Your task to perform on an android device: Go to Maps Image 0: 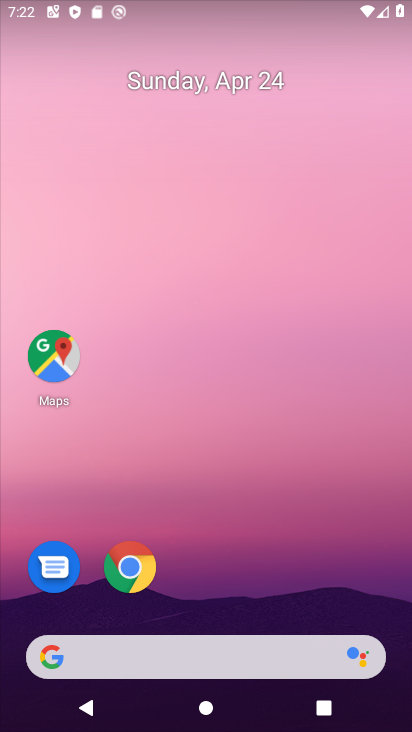
Step 0: drag from (306, 520) to (308, 65)
Your task to perform on an android device: Go to Maps Image 1: 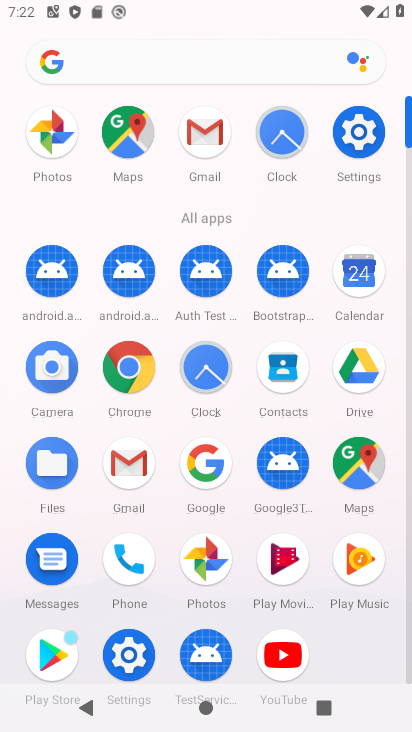
Step 1: click (141, 147)
Your task to perform on an android device: Go to Maps Image 2: 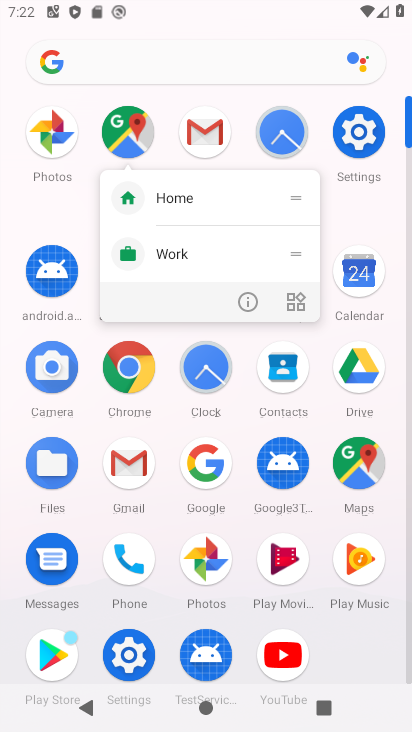
Step 2: click (141, 147)
Your task to perform on an android device: Go to Maps Image 3: 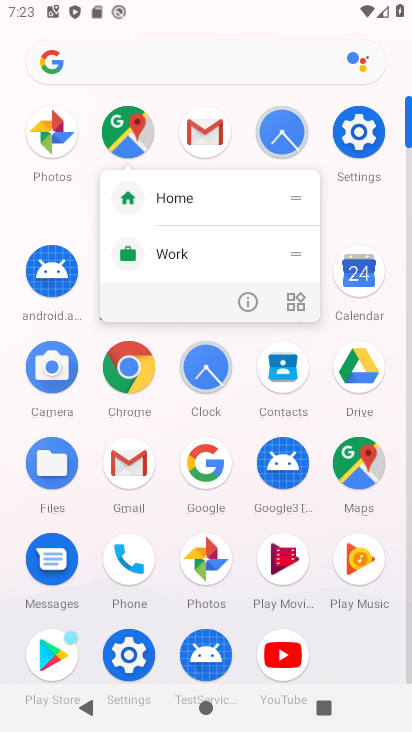
Step 3: click (141, 147)
Your task to perform on an android device: Go to Maps Image 4: 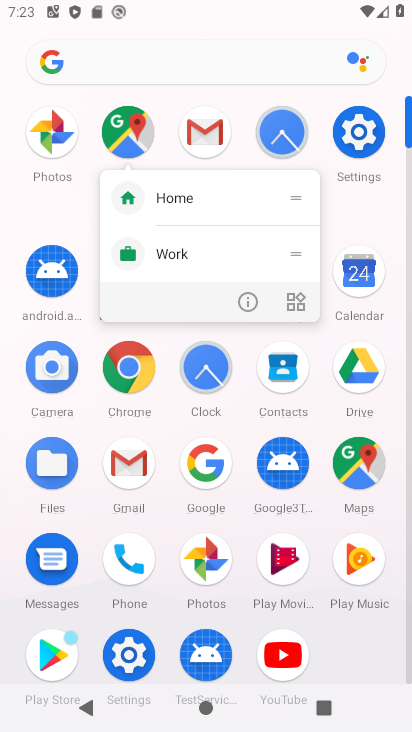
Step 4: click (141, 147)
Your task to perform on an android device: Go to Maps Image 5: 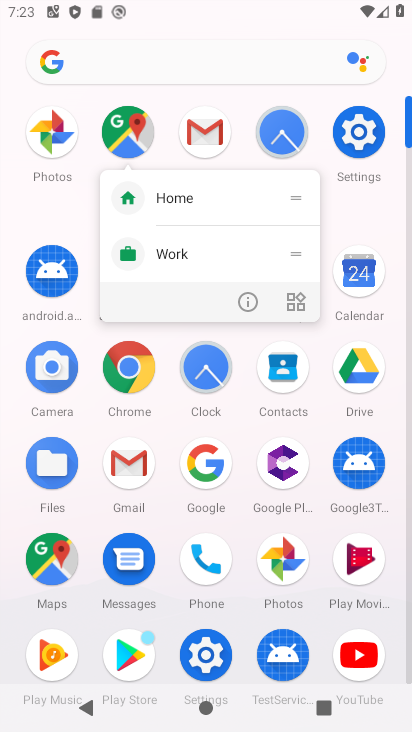
Step 5: click (141, 147)
Your task to perform on an android device: Go to Maps Image 6: 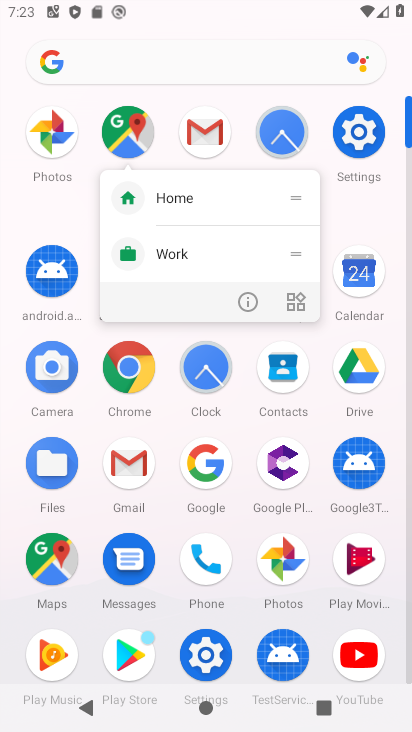
Step 6: click (141, 147)
Your task to perform on an android device: Go to Maps Image 7: 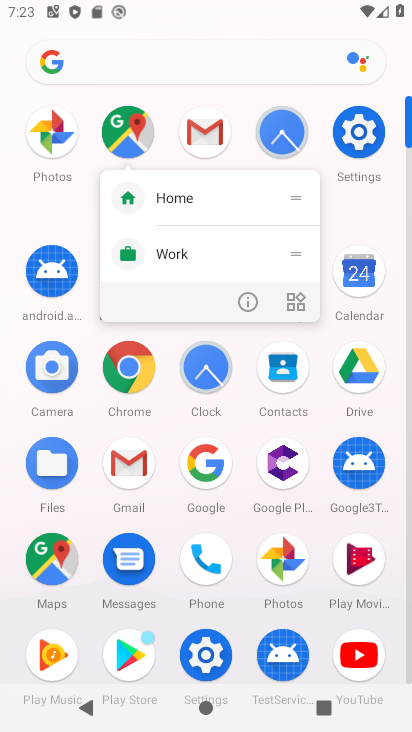
Step 7: click (141, 147)
Your task to perform on an android device: Go to Maps Image 8: 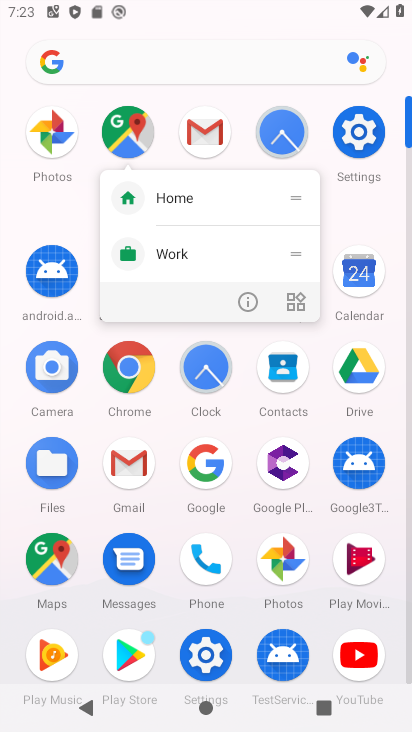
Step 8: click (141, 147)
Your task to perform on an android device: Go to Maps Image 9: 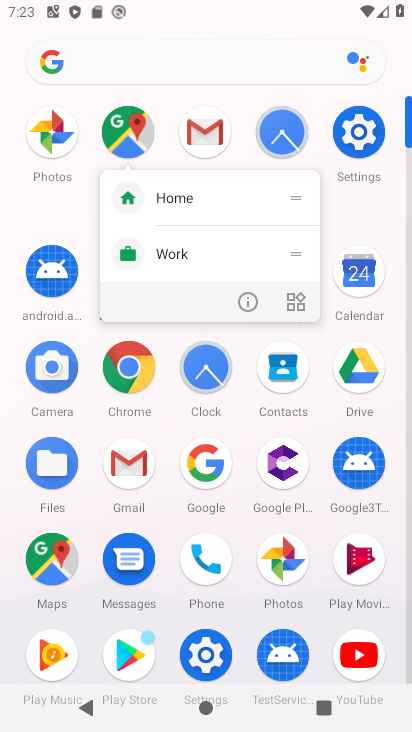
Step 9: click (141, 147)
Your task to perform on an android device: Go to Maps Image 10: 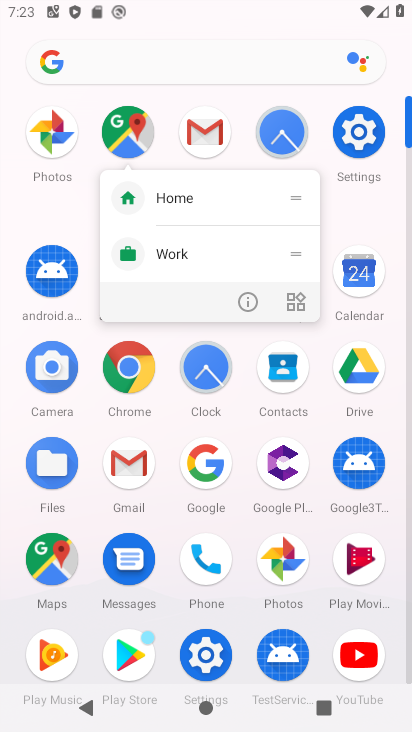
Step 10: click (141, 147)
Your task to perform on an android device: Go to Maps Image 11: 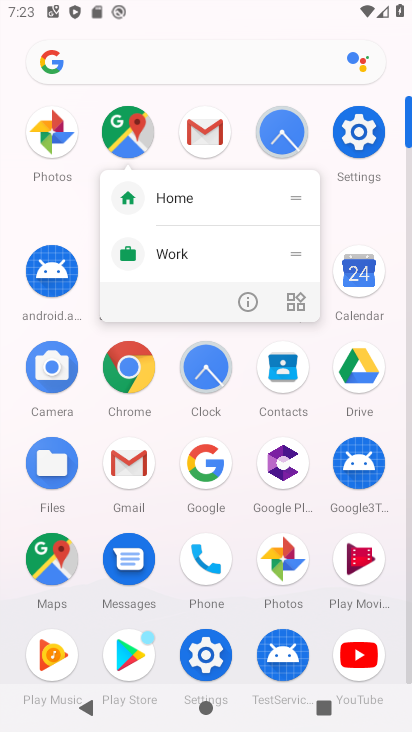
Step 11: click (141, 147)
Your task to perform on an android device: Go to Maps Image 12: 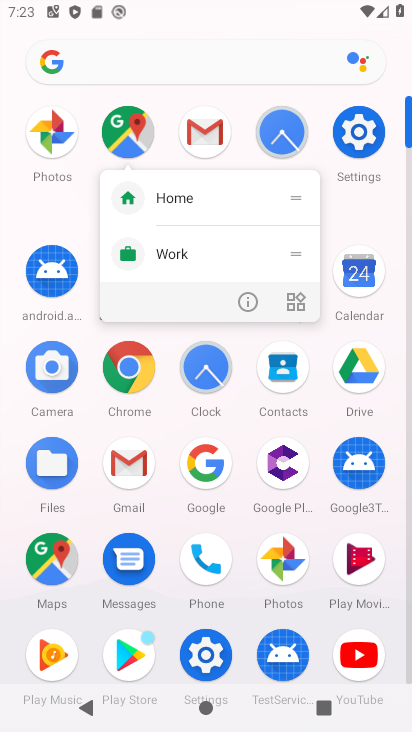
Step 12: click (141, 147)
Your task to perform on an android device: Go to Maps Image 13: 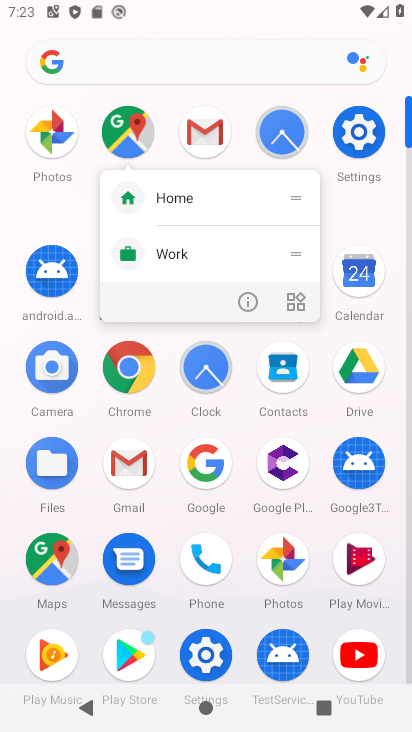
Step 13: click (141, 147)
Your task to perform on an android device: Go to Maps Image 14: 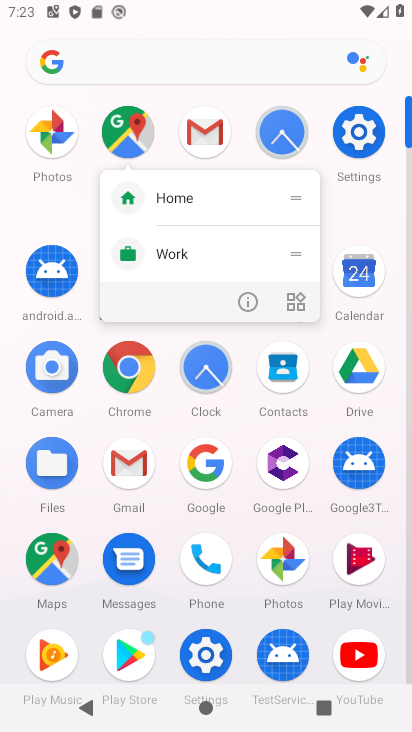
Step 14: click (141, 147)
Your task to perform on an android device: Go to Maps Image 15: 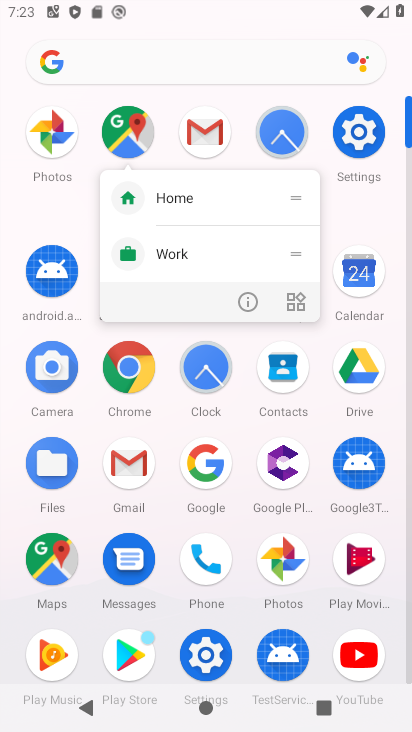
Step 15: click (141, 147)
Your task to perform on an android device: Go to Maps Image 16: 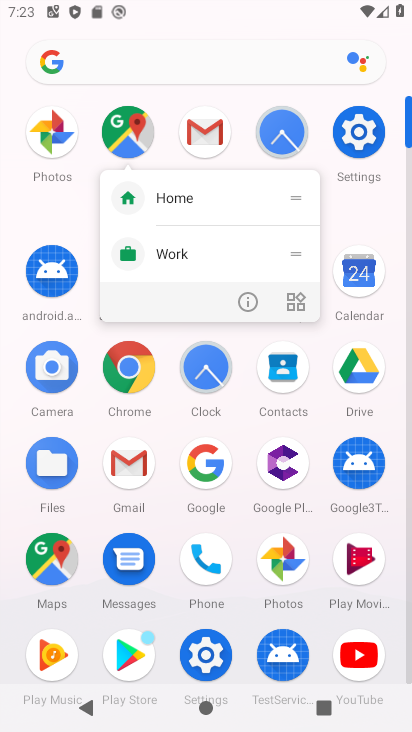
Step 16: click (141, 147)
Your task to perform on an android device: Go to Maps Image 17: 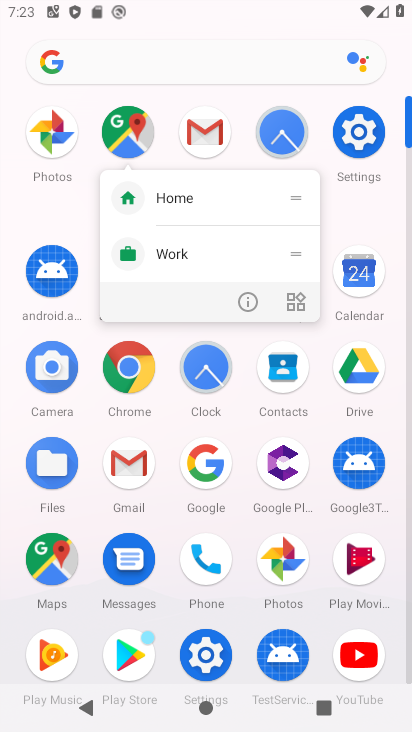
Step 17: click (141, 147)
Your task to perform on an android device: Go to Maps Image 18: 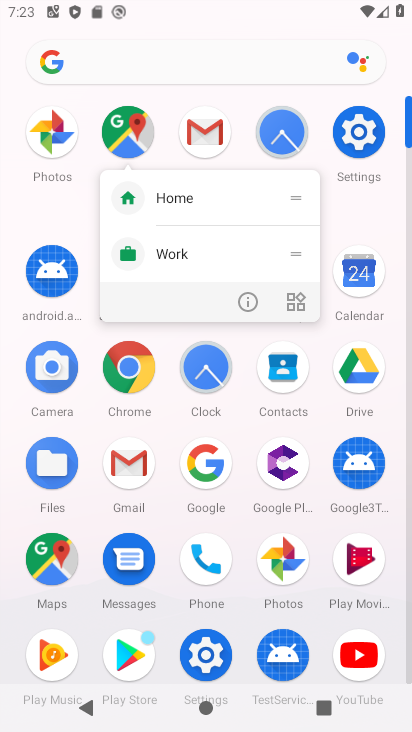
Step 18: click (141, 147)
Your task to perform on an android device: Go to Maps Image 19: 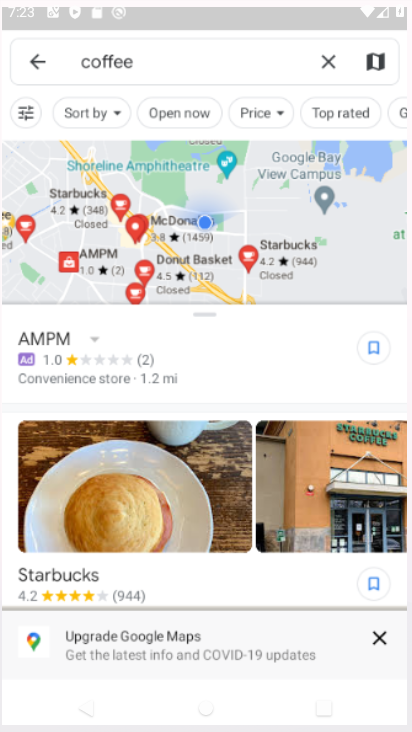
Step 19: click (141, 147)
Your task to perform on an android device: Go to Maps Image 20: 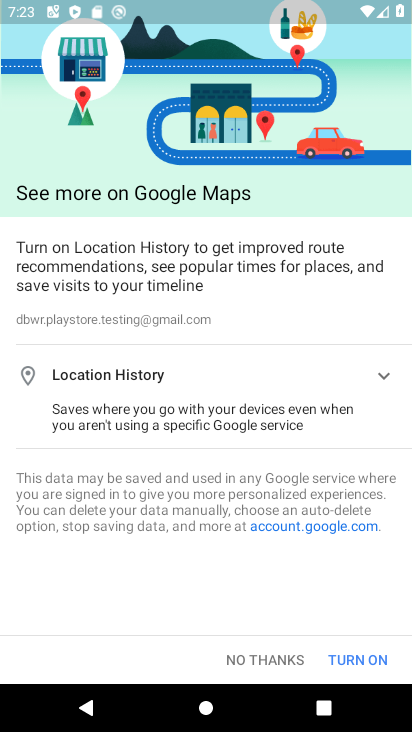
Step 20: task complete